Your task to perform on an android device: What's the weather going to be this weekend? Image 0: 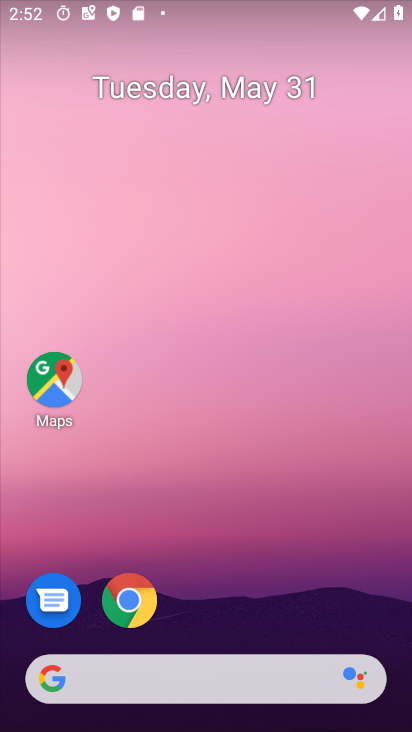
Step 0: press home button
Your task to perform on an android device: What's the weather going to be this weekend? Image 1: 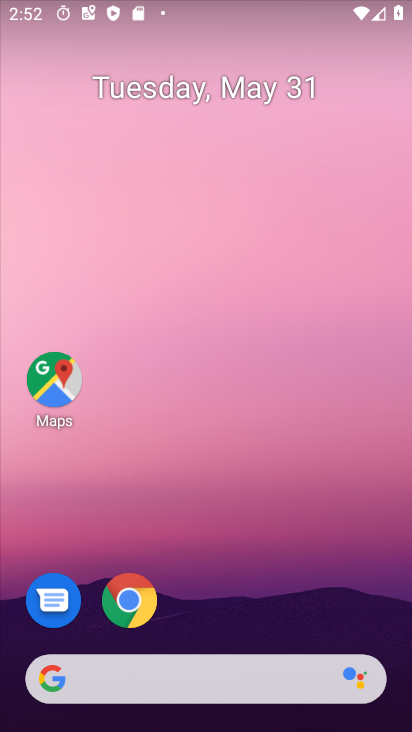
Step 1: drag from (12, 285) to (392, 209)
Your task to perform on an android device: What's the weather going to be this weekend? Image 2: 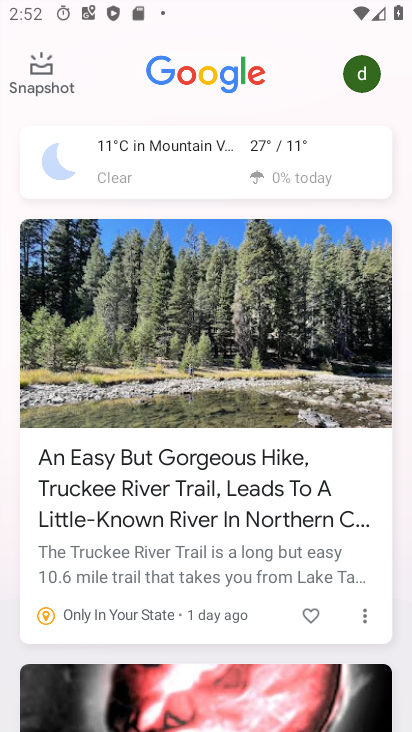
Step 2: click (303, 153)
Your task to perform on an android device: What's the weather going to be this weekend? Image 3: 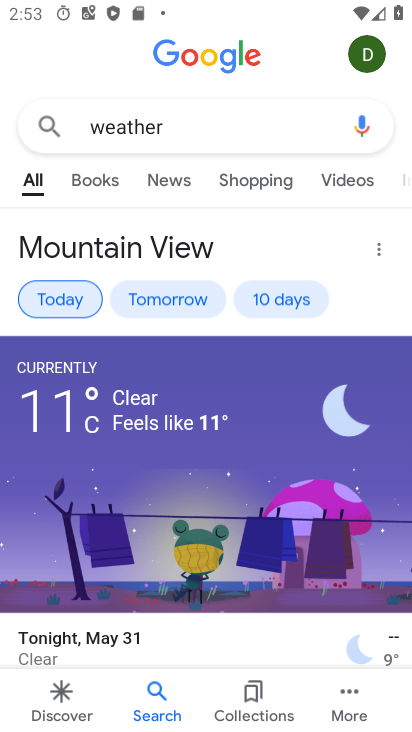
Step 3: click (274, 298)
Your task to perform on an android device: What's the weather going to be this weekend? Image 4: 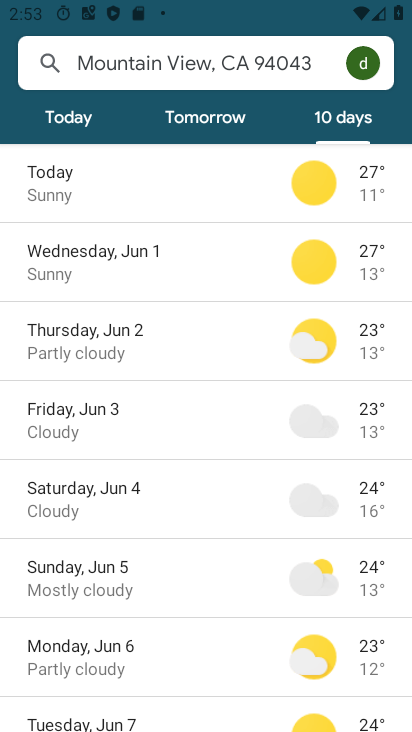
Step 4: task complete